Your task to perform on an android device: delete a single message in the gmail app Image 0: 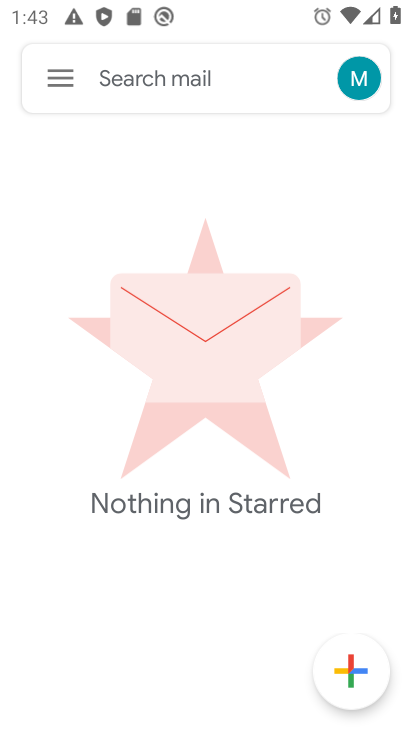
Step 0: press home button
Your task to perform on an android device: delete a single message in the gmail app Image 1: 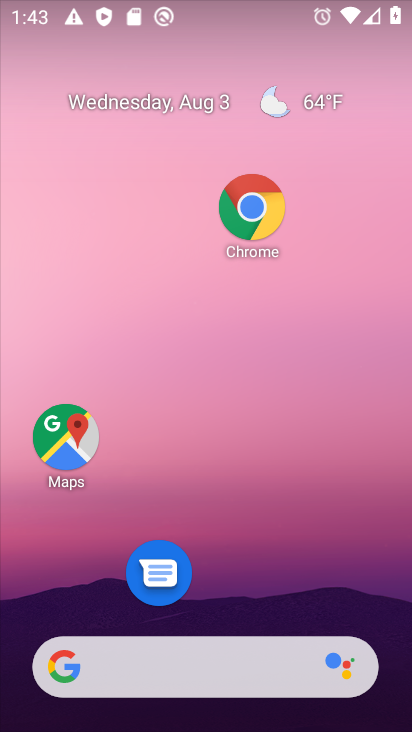
Step 1: drag from (228, 522) to (347, 194)
Your task to perform on an android device: delete a single message in the gmail app Image 2: 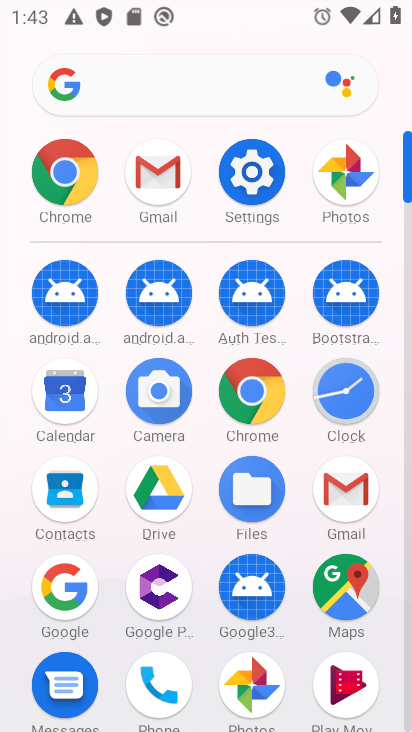
Step 2: click (351, 501)
Your task to perform on an android device: delete a single message in the gmail app Image 3: 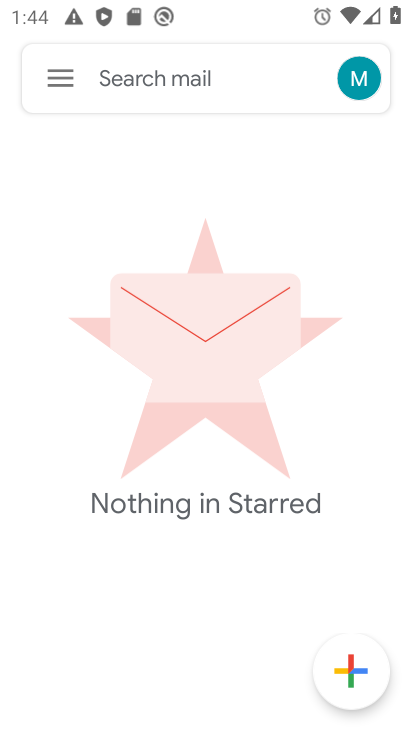
Step 3: click (66, 89)
Your task to perform on an android device: delete a single message in the gmail app Image 4: 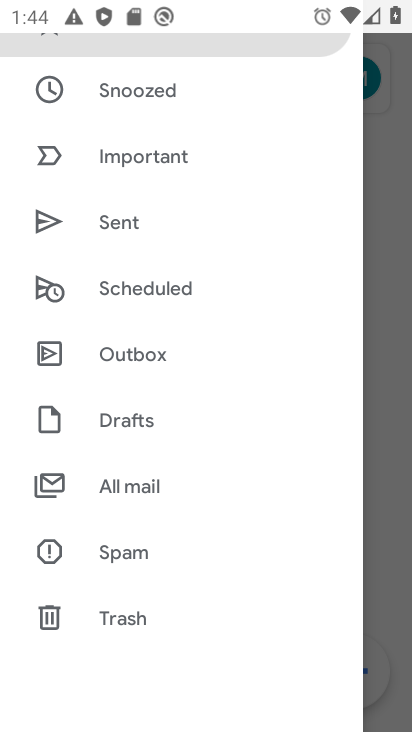
Step 4: drag from (161, 530) to (225, 183)
Your task to perform on an android device: delete a single message in the gmail app Image 5: 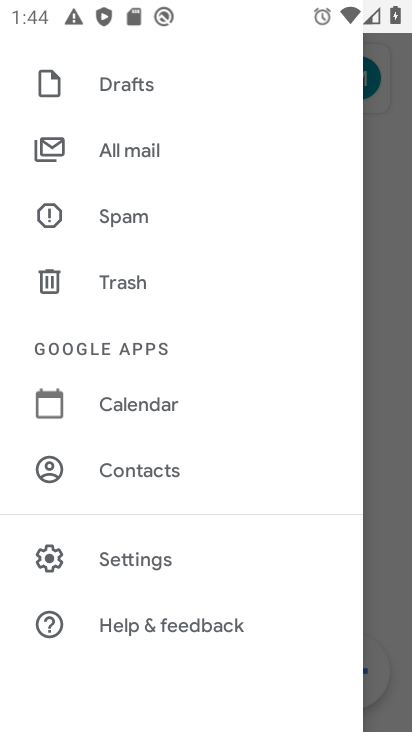
Step 5: click (127, 141)
Your task to perform on an android device: delete a single message in the gmail app Image 6: 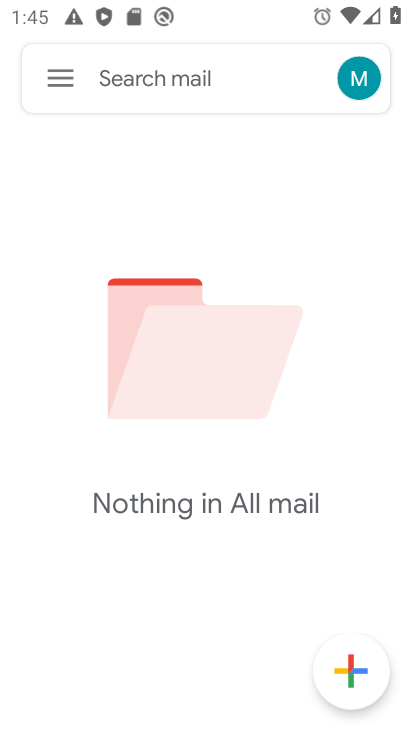
Step 6: task complete